Your task to perform on an android device: Go to ESPN.com Image 0: 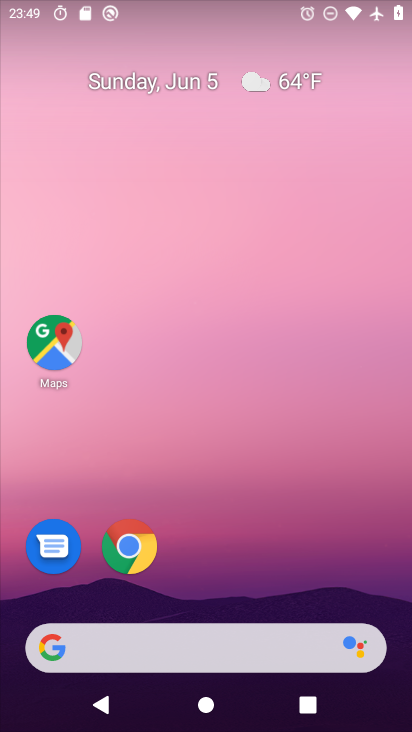
Step 0: drag from (213, 349) to (251, 110)
Your task to perform on an android device: Go to ESPN.com Image 1: 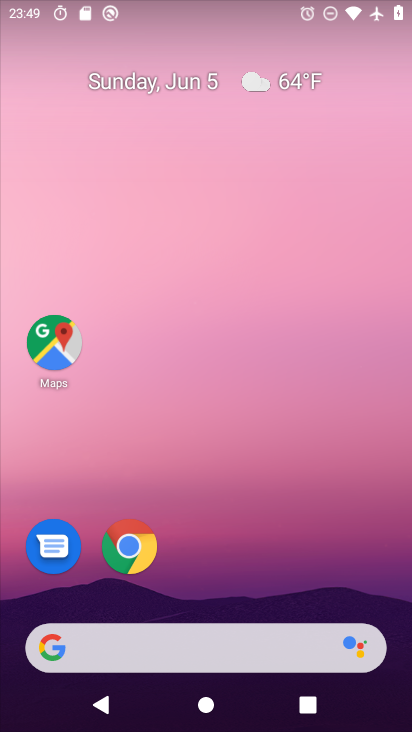
Step 1: drag from (187, 596) to (196, 92)
Your task to perform on an android device: Go to ESPN.com Image 2: 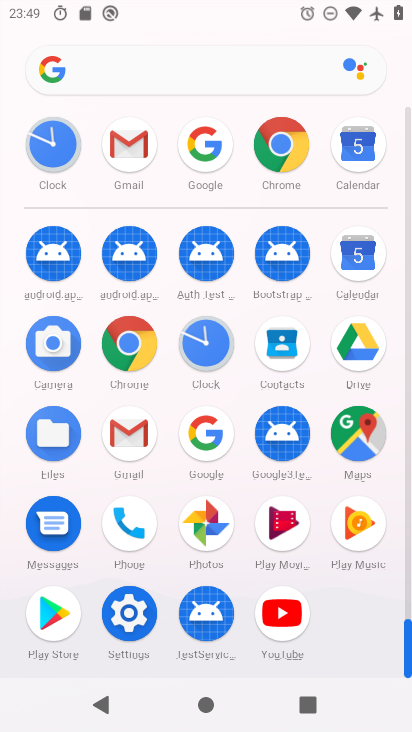
Step 2: click (187, 73)
Your task to perform on an android device: Go to ESPN.com Image 3: 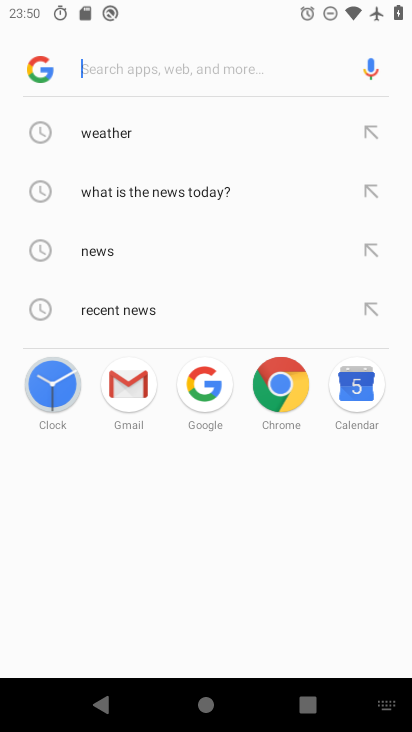
Step 3: type "ESPN.com"
Your task to perform on an android device: Go to ESPN.com Image 4: 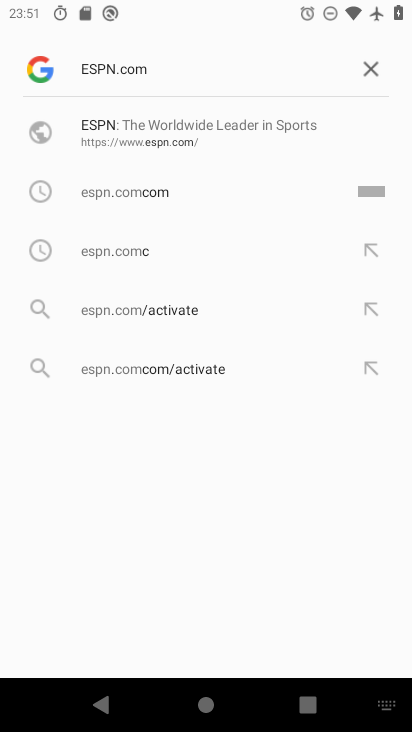
Step 4: click (133, 123)
Your task to perform on an android device: Go to ESPN.com Image 5: 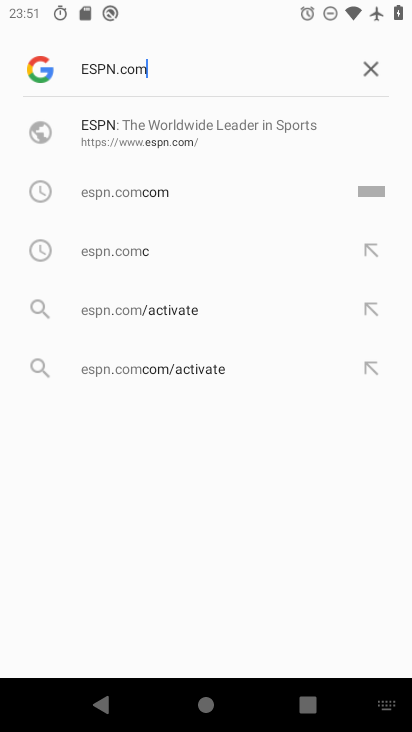
Step 5: task complete